Your task to perform on an android device: open the mobile data screen to see how much data has been used Image 0: 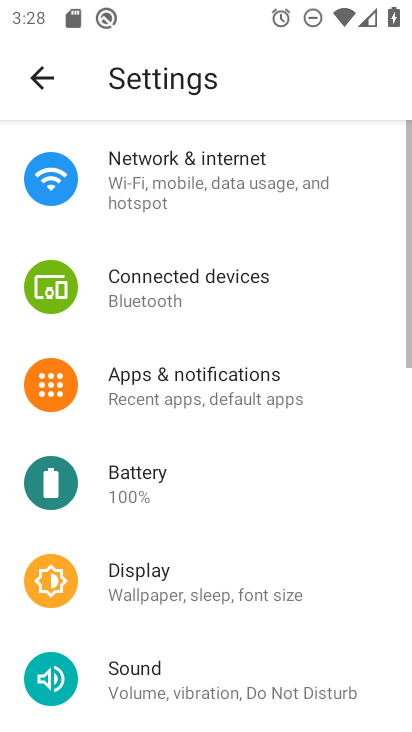
Step 0: press home button
Your task to perform on an android device: open the mobile data screen to see how much data has been used Image 1: 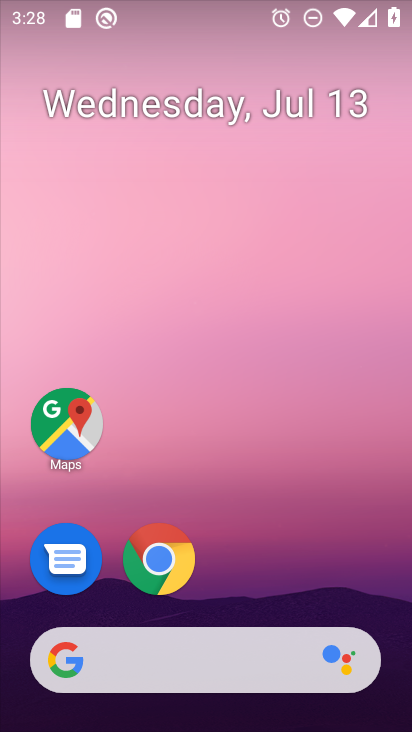
Step 1: drag from (306, 577) to (321, 242)
Your task to perform on an android device: open the mobile data screen to see how much data has been used Image 2: 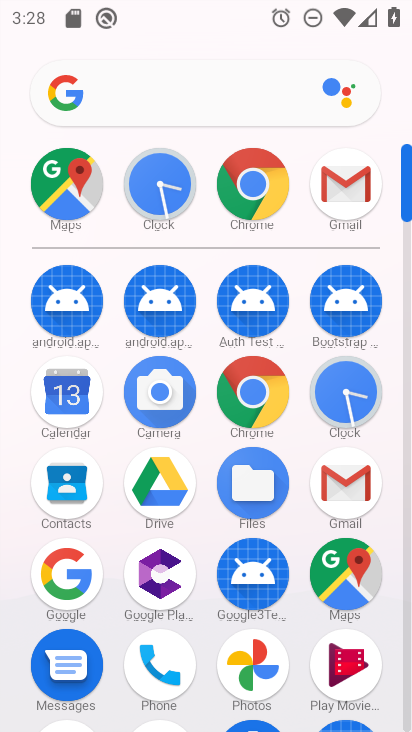
Step 2: drag from (207, 529) to (208, 315)
Your task to perform on an android device: open the mobile data screen to see how much data has been used Image 3: 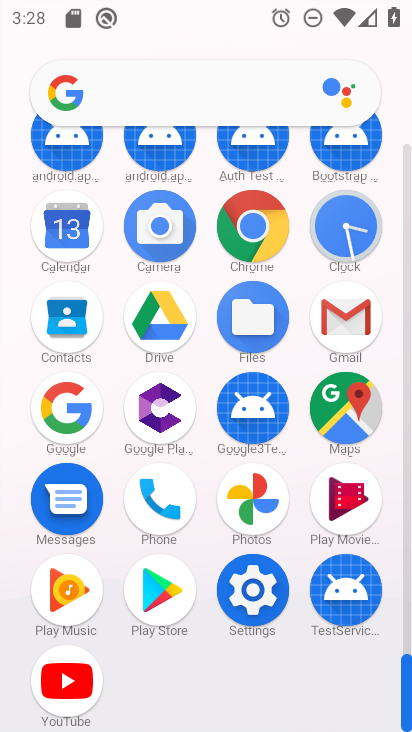
Step 3: click (251, 607)
Your task to perform on an android device: open the mobile data screen to see how much data has been used Image 4: 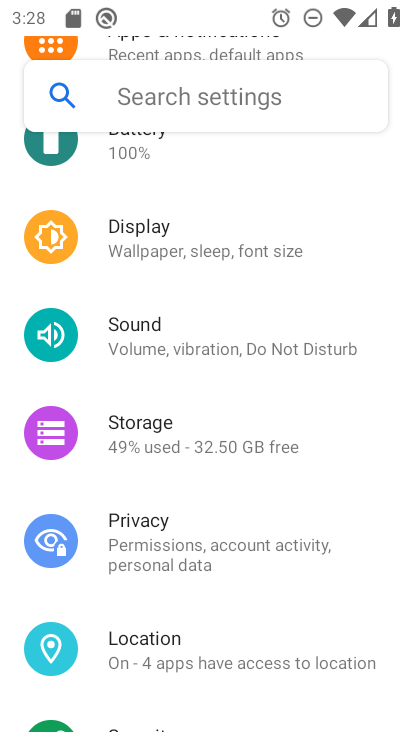
Step 4: drag from (349, 257) to (358, 424)
Your task to perform on an android device: open the mobile data screen to see how much data has been used Image 5: 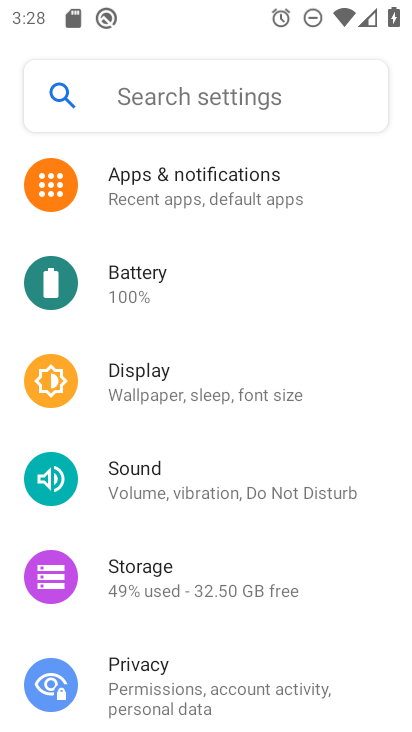
Step 5: drag from (354, 258) to (359, 433)
Your task to perform on an android device: open the mobile data screen to see how much data has been used Image 6: 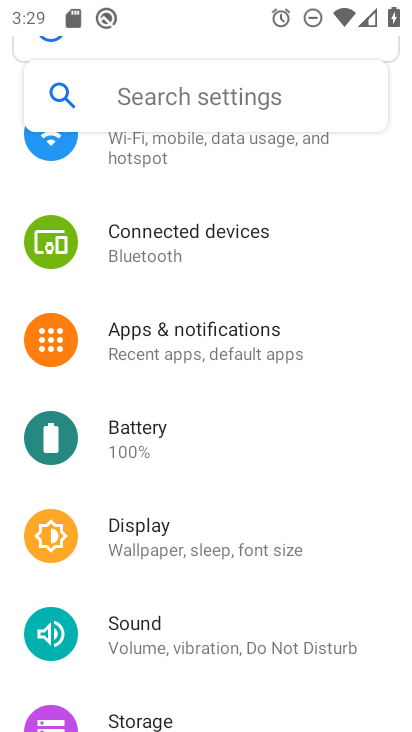
Step 6: drag from (354, 340) to (359, 497)
Your task to perform on an android device: open the mobile data screen to see how much data has been used Image 7: 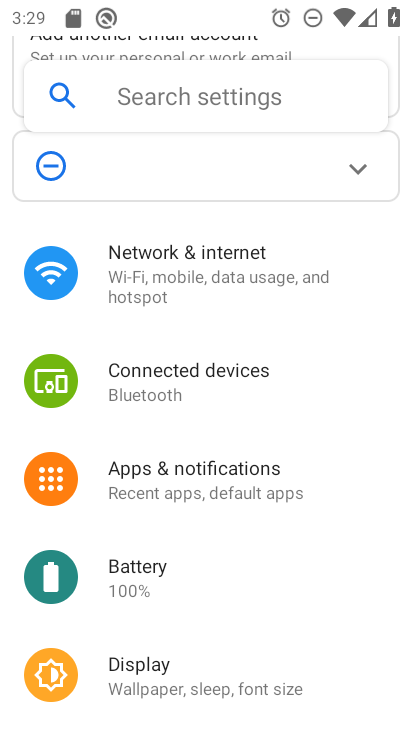
Step 7: drag from (362, 333) to (348, 501)
Your task to perform on an android device: open the mobile data screen to see how much data has been used Image 8: 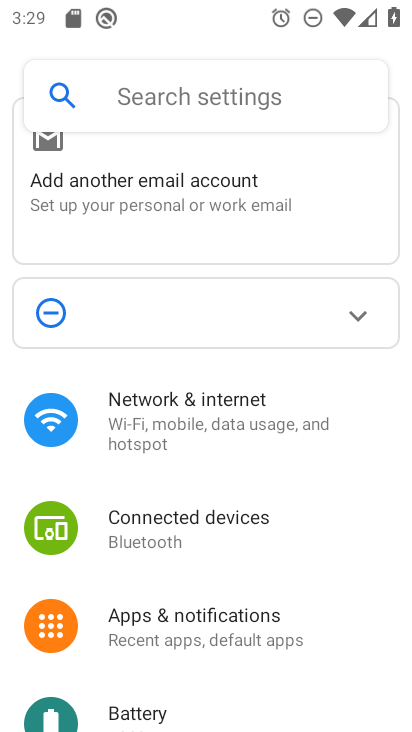
Step 8: drag from (341, 546) to (362, 413)
Your task to perform on an android device: open the mobile data screen to see how much data has been used Image 9: 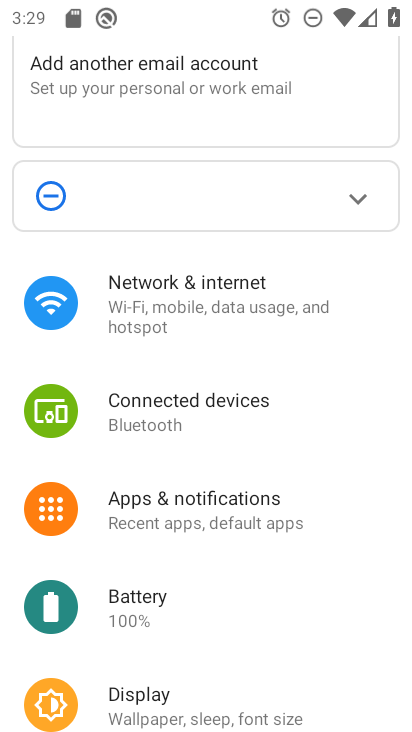
Step 9: drag from (334, 566) to (361, 414)
Your task to perform on an android device: open the mobile data screen to see how much data has been used Image 10: 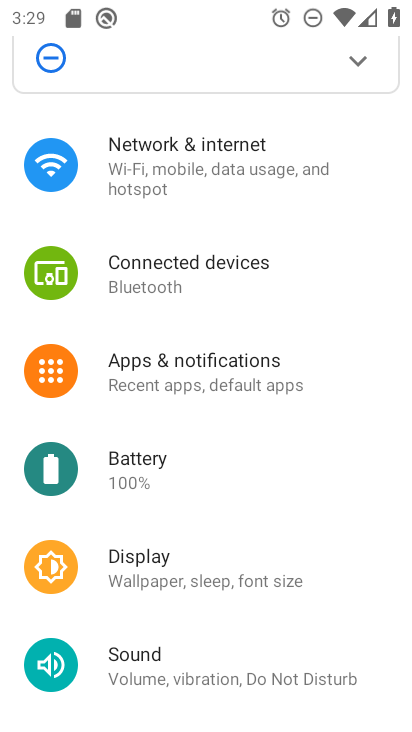
Step 10: drag from (319, 257) to (312, 451)
Your task to perform on an android device: open the mobile data screen to see how much data has been used Image 11: 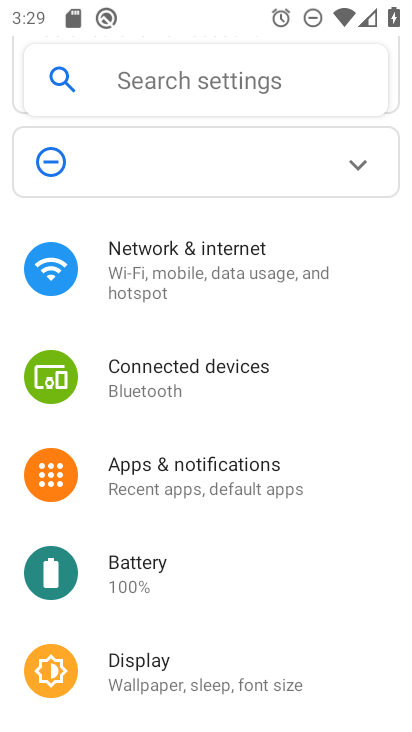
Step 11: click (213, 268)
Your task to perform on an android device: open the mobile data screen to see how much data has been used Image 12: 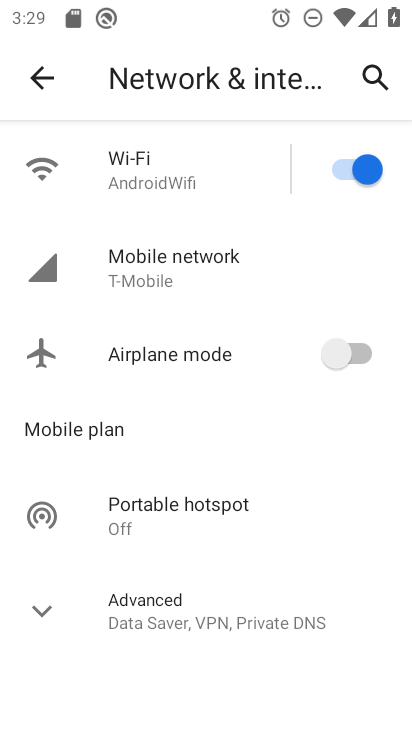
Step 12: drag from (292, 575) to (293, 404)
Your task to perform on an android device: open the mobile data screen to see how much data has been used Image 13: 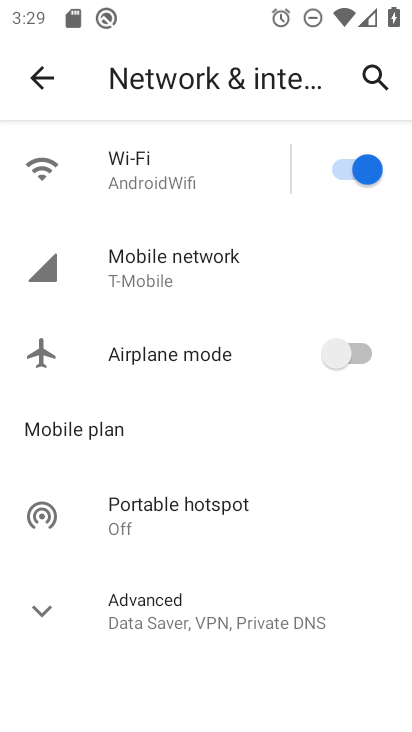
Step 13: click (191, 251)
Your task to perform on an android device: open the mobile data screen to see how much data has been used Image 14: 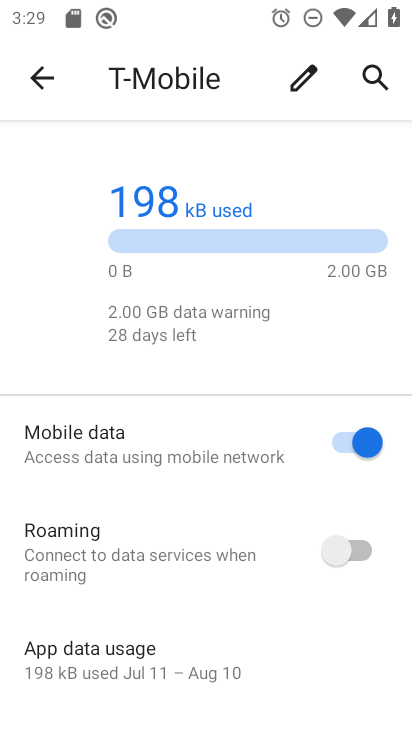
Step 14: drag from (283, 575) to (271, 363)
Your task to perform on an android device: open the mobile data screen to see how much data has been used Image 15: 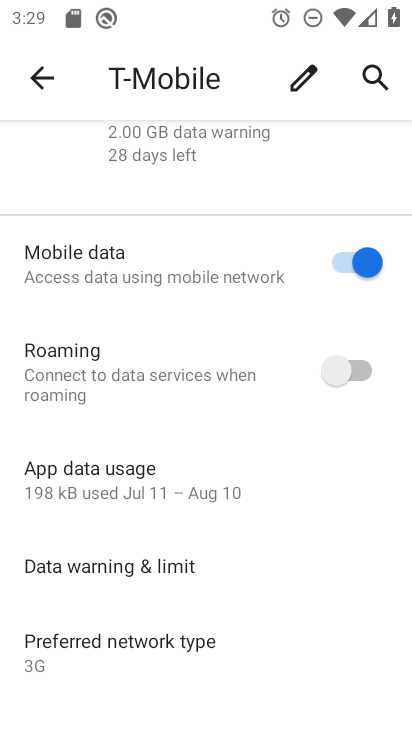
Step 15: click (193, 492)
Your task to perform on an android device: open the mobile data screen to see how much data has been used Image 16: 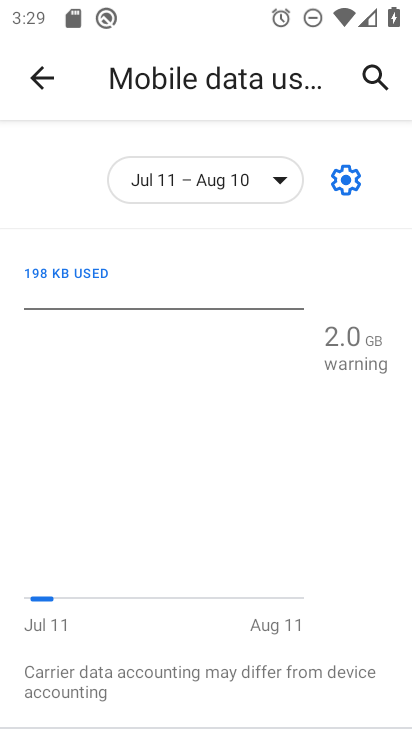
Step 16: task complete